Your task to perform on an android device: open chrome privacy settings Image 0: 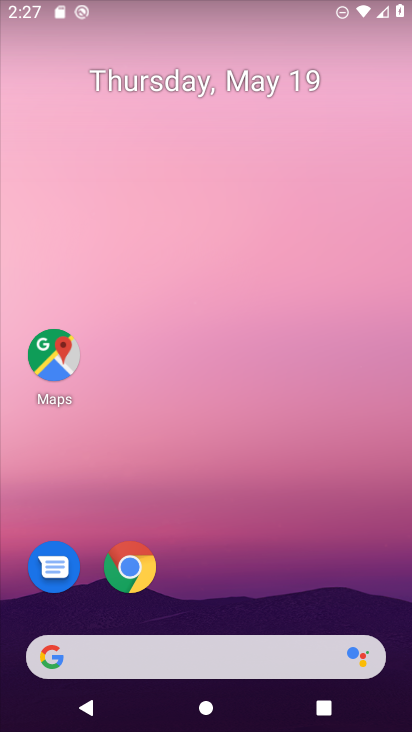
Step 0: click (139, 558)
Your task to perform on an android device: open chrome privacy settings Image 1: 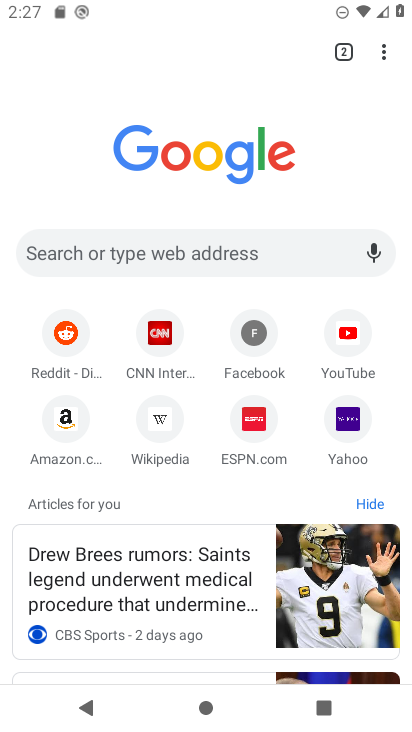
Step 1: click (389, 50)
Your task to perform on an android device: open chrome privacy settings Image 2: 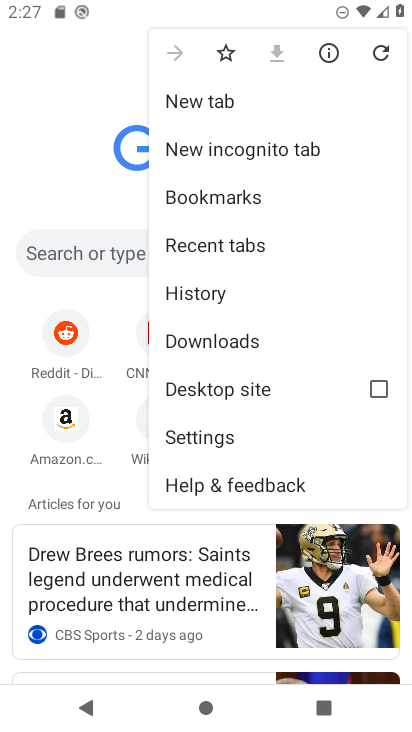
Step 2: click (234, 432)
Your task to perform on an android device: open chrome privacy settings Image 3: 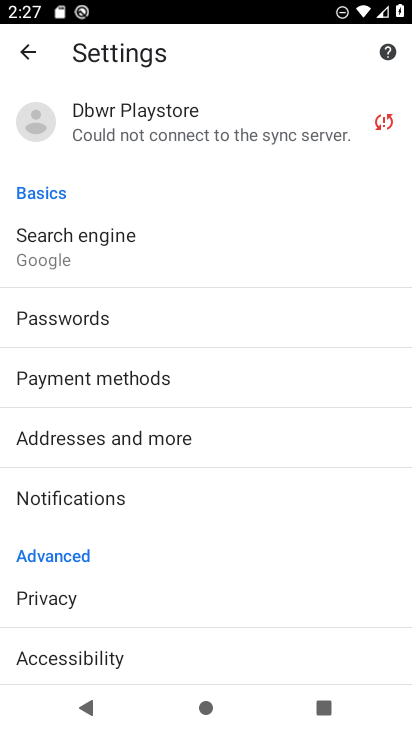
Step 3: click (175, 603)
Your task to perform on an android device: open chrome privacy settings Image 4: 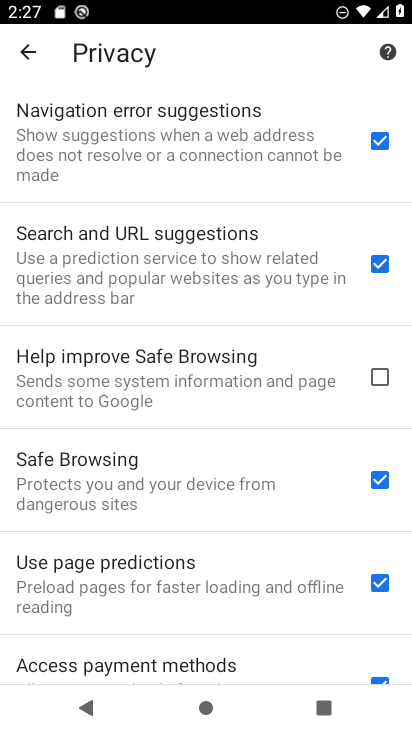
Step 4: task complete